Your task to perform on an android device: Show me popular games on the Play Store Image 0: 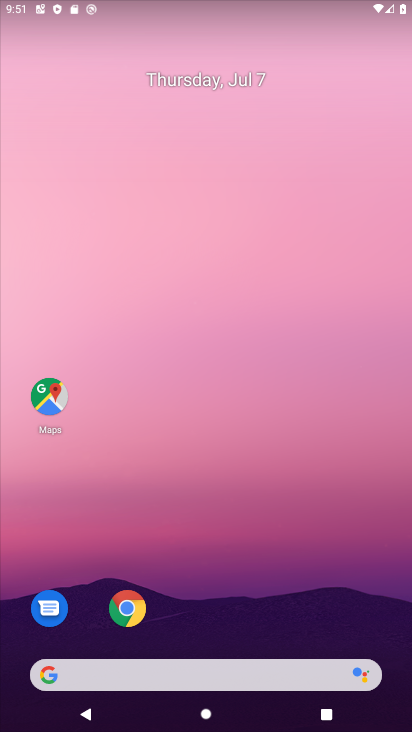
Step 0: drag from (195, 608) to (206, 149)
Your task to perform on an android device: Show me popular games on the Play Store Image 1: 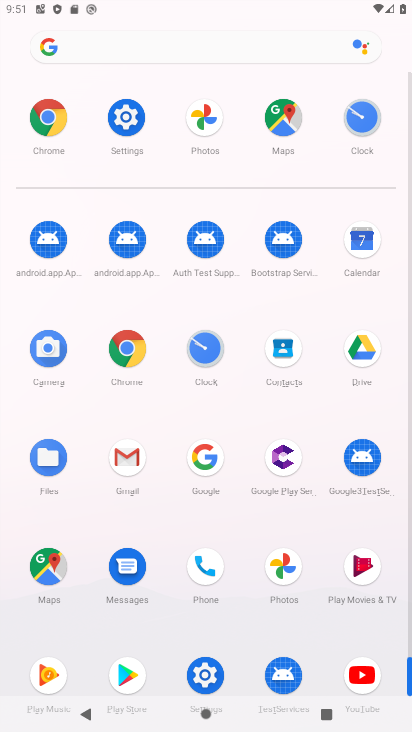
Step 1: click (122, 677)
Your task to perform on an android device: Show me popular games on the Play Store Image 2: 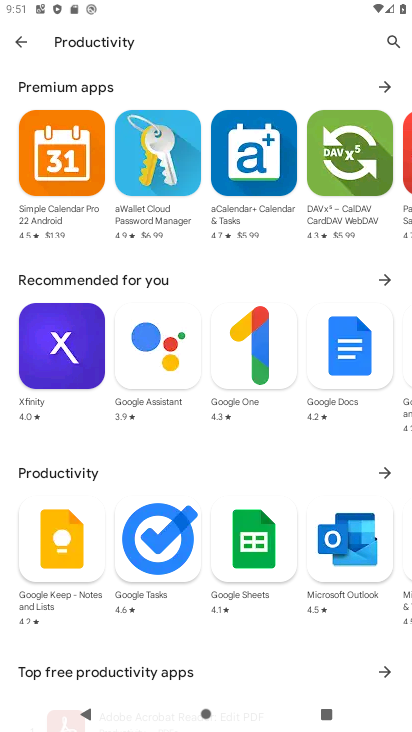
Step 2: press back button
Your task to perform on an android device: Show me popular games on the Play Store Image 3: 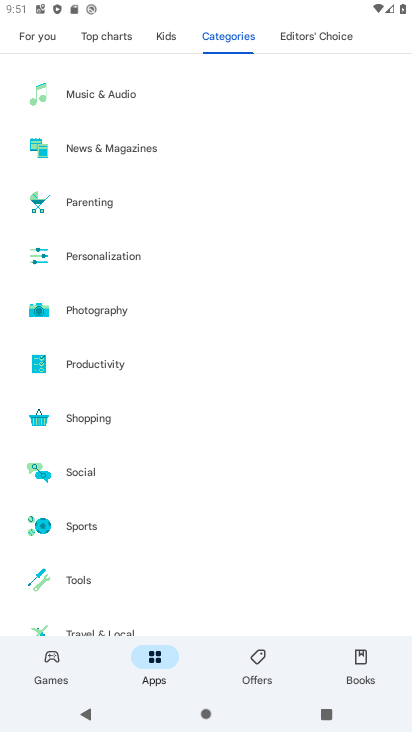
Step 3: click (61, 665)
Your task to perform on an android device: Show me popular games on the Play Store Image 4: 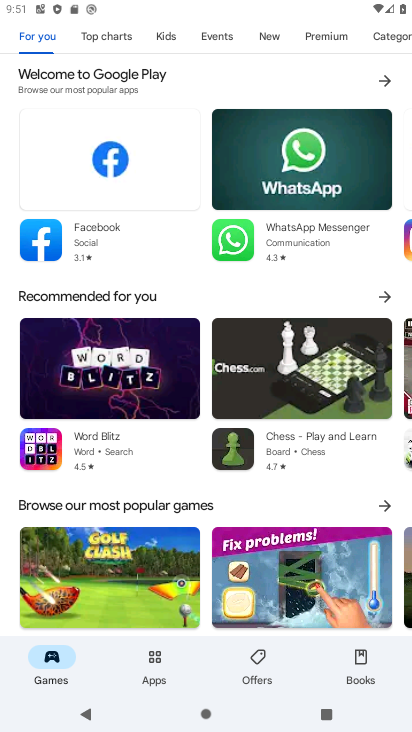
Step 4: drag from (245, 547) to (284, 126)
Your task to perform on an android device: Show me popular games on the Play Store Image 5: 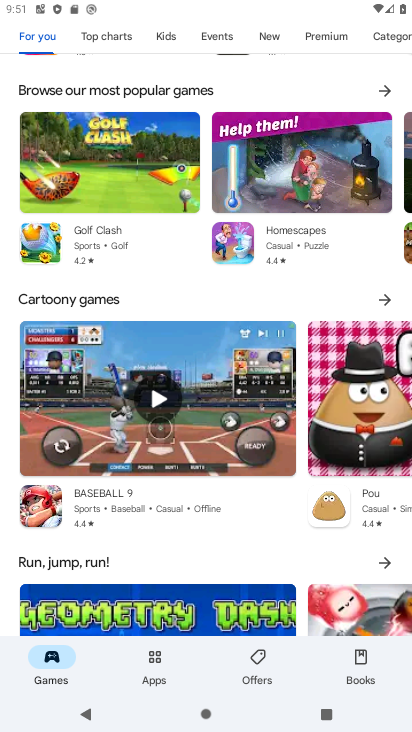
Step 5: click (367, 83)
Your task to perform on an android device: Show me popular games on the Play Store Image 6: 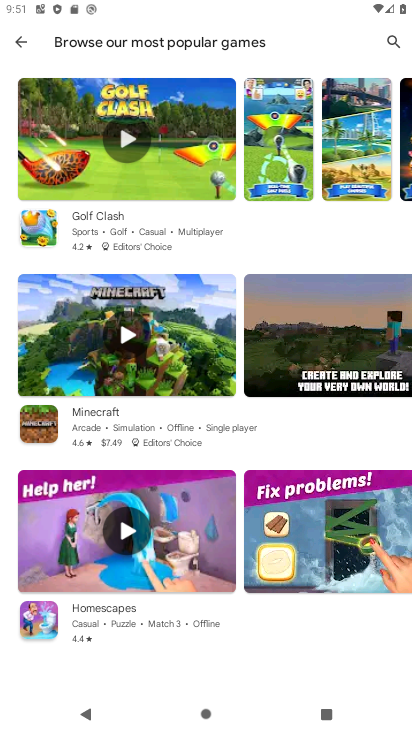
Step 6: task complete